Your task to perform on an android device: delete the emails in spam in the gmail app Image 0: 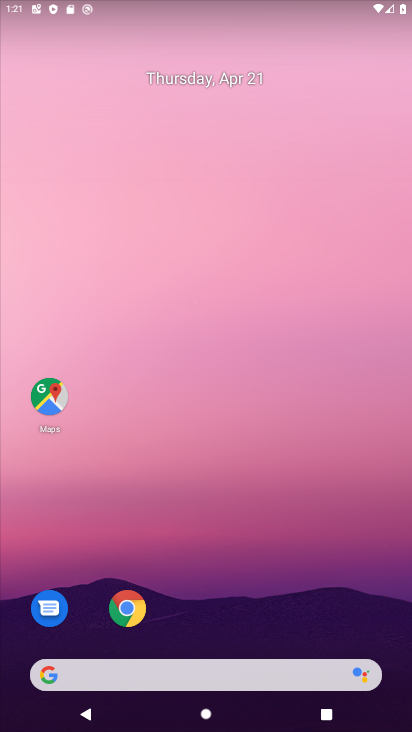
Step 0: drag from (314, 598) to (305, 126)
Your task to perform on an android device: delete the emails in spam in the gmail app Image 1: 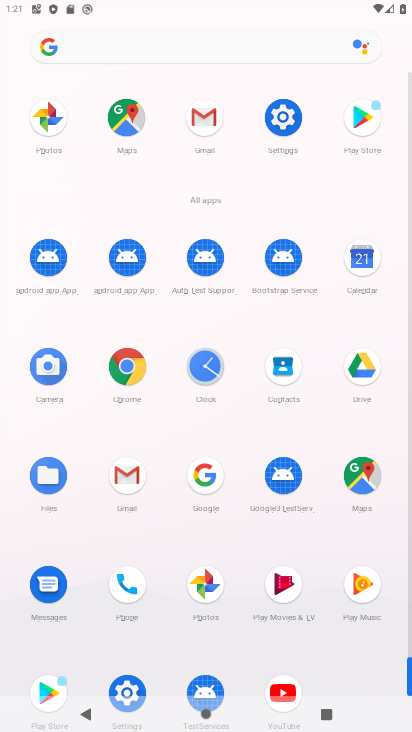
Step 1: click (209, 106)
Your task to perform on an android device: delete the emails in spam in the gmail app Image 2: 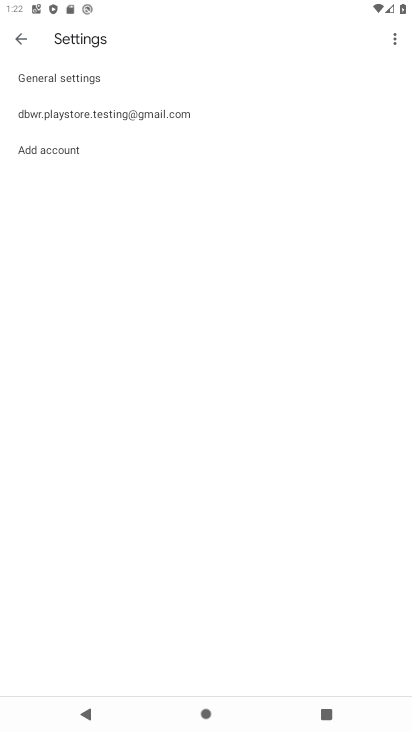
Step 2: click (43, 109)
Your task to perform on an android device: delete the emails in spam in the gmail app Image 3: 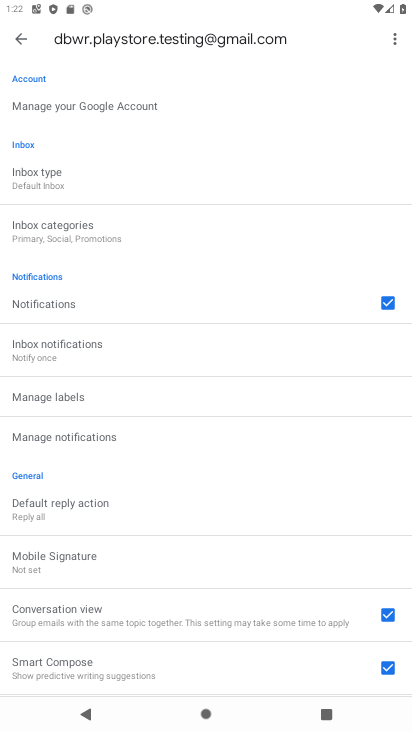
Step 3: click (33, 68)
Your task to perform on an android device: delete the emails in spam in the gmail app Image 4: 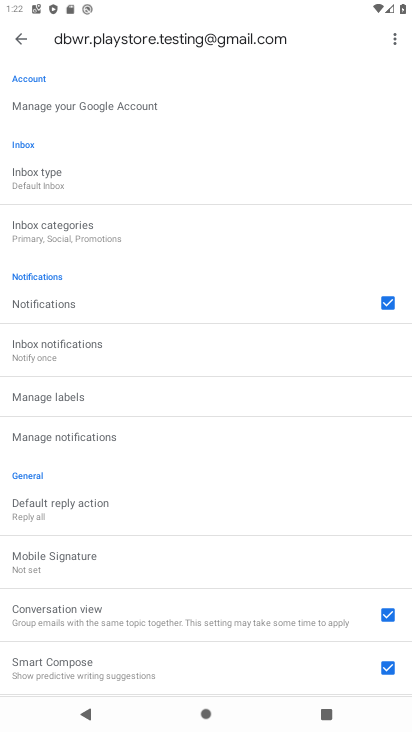
Step 4: click (24, 53)
Your task to perform on an android device: delete the emails in spam in the gmail app Image 5: 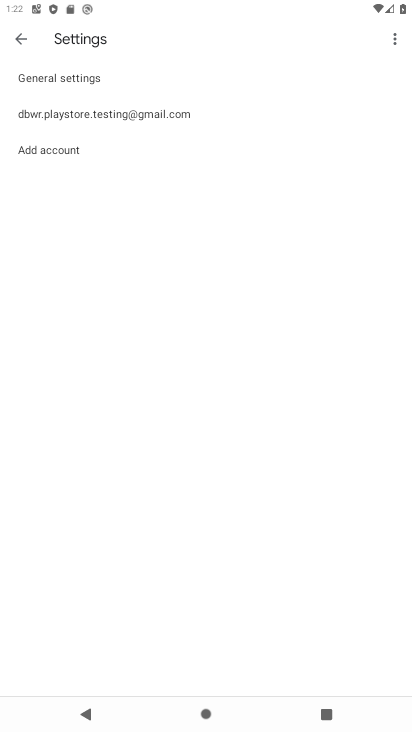
Step 5: click (24, 52)
Your task to perform on an android device: delete the emails in spam in the gmail app Image 6: 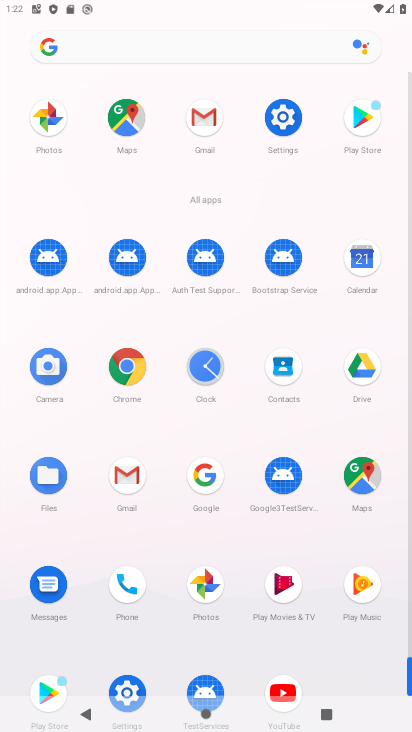
Step 6: click (214, 116)
Your task to perform on an android device: delete the emails in spam in the gmail app Image 7: 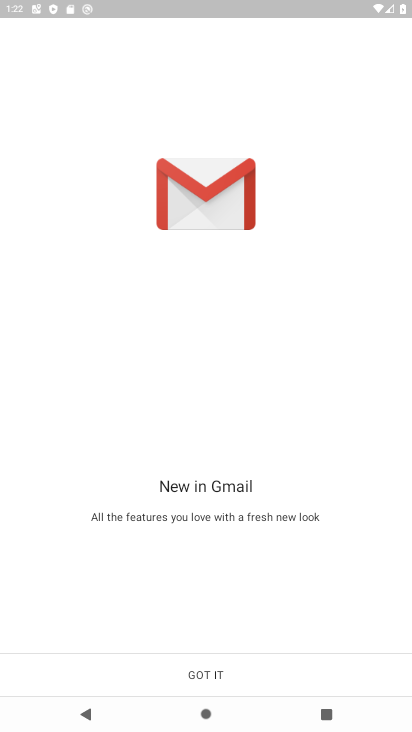
Step 7: click (230, 663)
Your task to perform on an android device: delete the emails in spam in the gmail app Image 8: 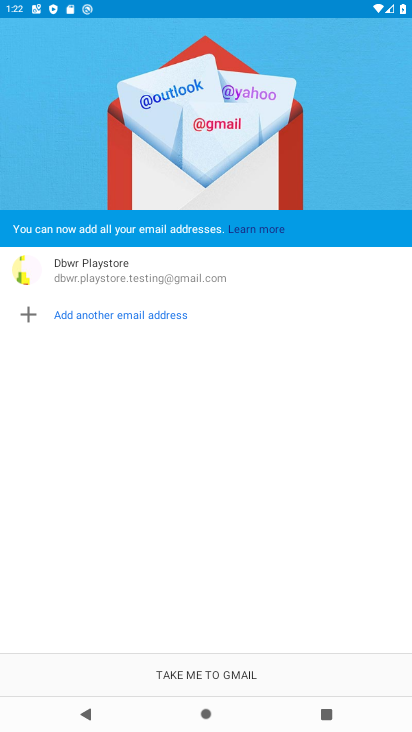
Step 8: click (237, 678)
Your task to perform on an android device: delete the emails in spam in the gmail app Image 9: 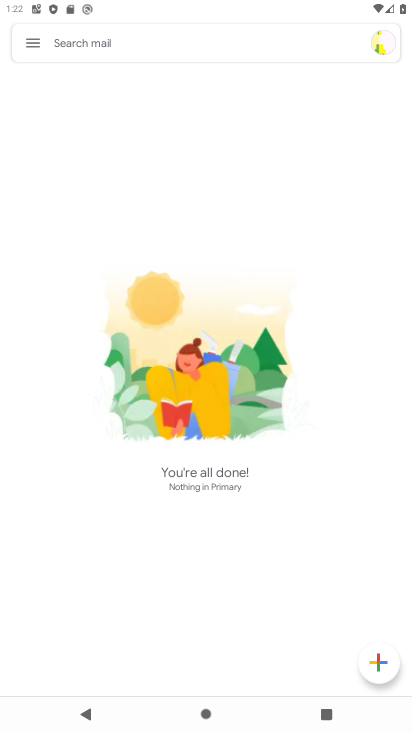
Step 9: click (36, 38)
Your task to perform on an android device: delete the emails in spam in the gmail app Image 10: 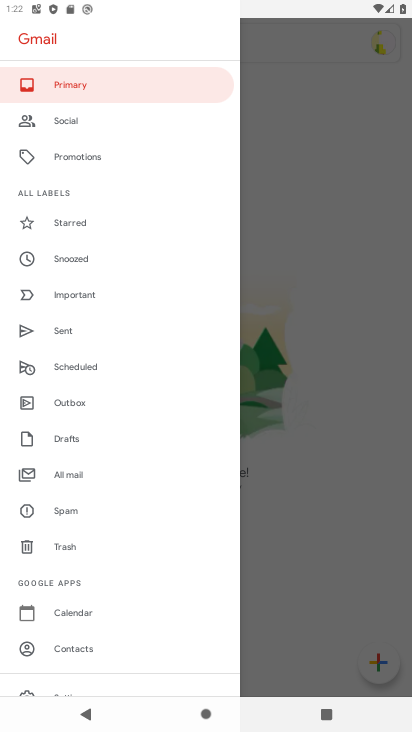
Step 10: click (80, 511)
Your task to perform on an android device: delete the emails in spam in the gmail app Image 11: 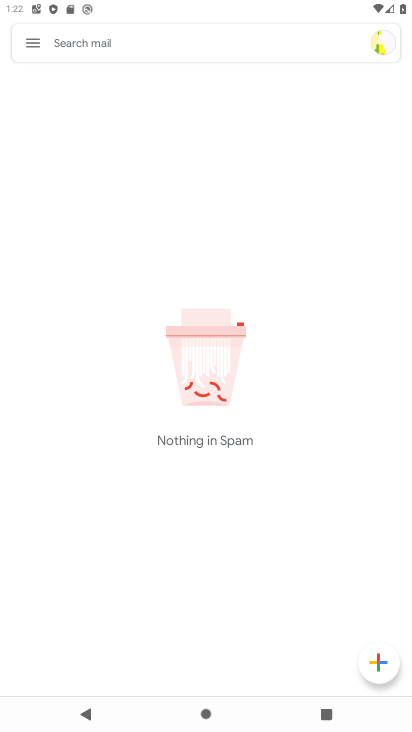
Step 11: task complete